Your task to perform on an android device: change notification settings in the gmail app Image 0: 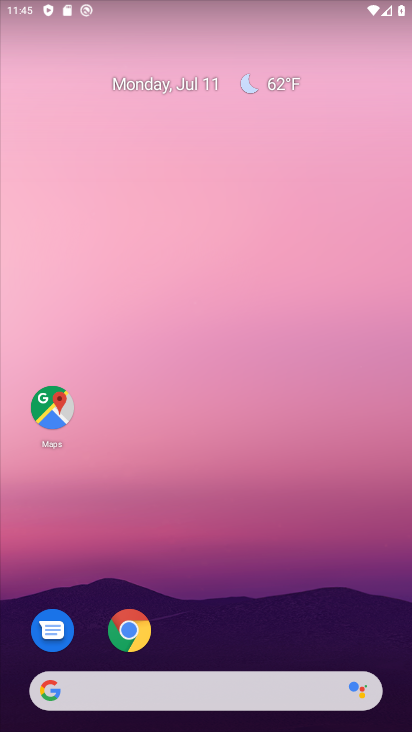
Step 0: drag from (220, 649) to (227, 153)
Your task to perform on an android device: change notification settings in the gmail app Image 1: 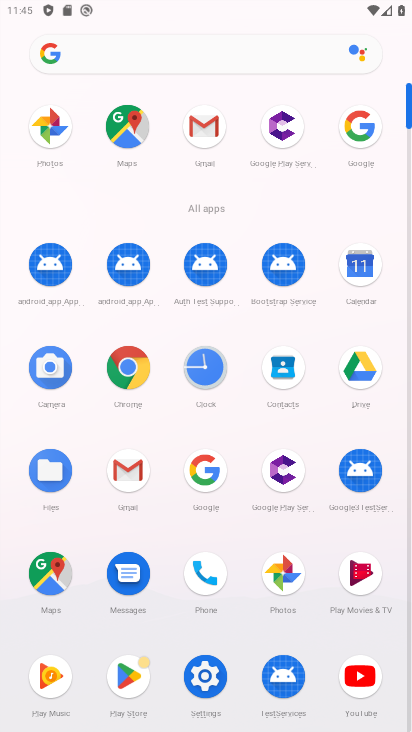
Step 1: click (199, 125)
Your task to perform on an android device: change notification settings in the gmail app Image 2: 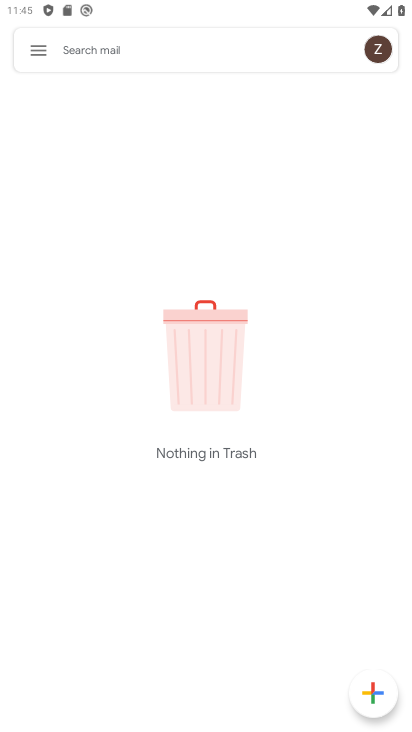
Step 2: click (41, 49)
Your task to perform on an android device: change notification settings in the gmail app Image 3: 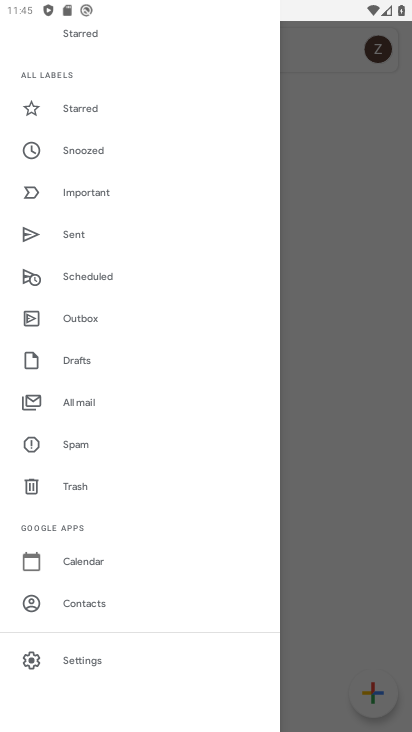
Step 3: click (98, 661)
Your task to perform on an android device: change notification settings in the gmail app Image 4: 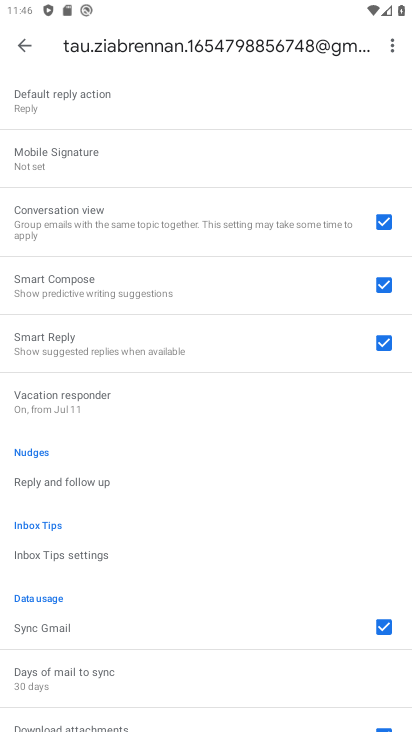
Step 4: drag from (108, 584) to (143, 690)
Your task to perform on an android device: change notification settings in the gmail app Image 5: 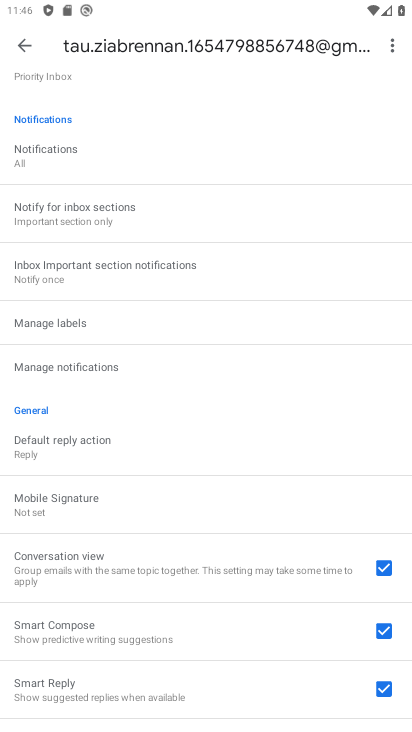
Step 5: click (62, 161)
Your task to perform on an android device: change notification settings in the gmail app Image 6: 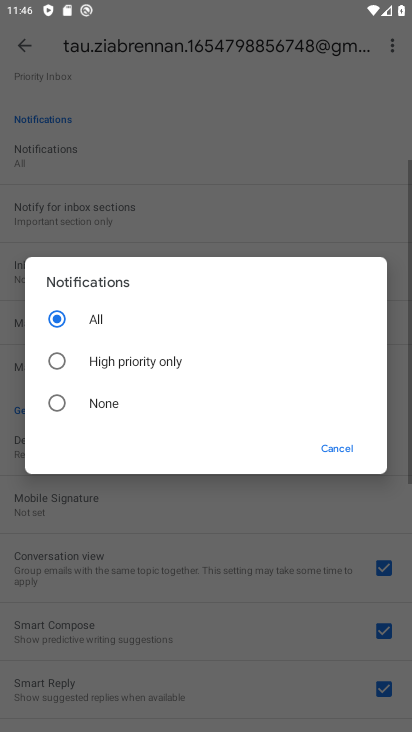
Step 6: click (57, 407)
Your task to perform on an android device: change notification settings in the gmail app Image 7: 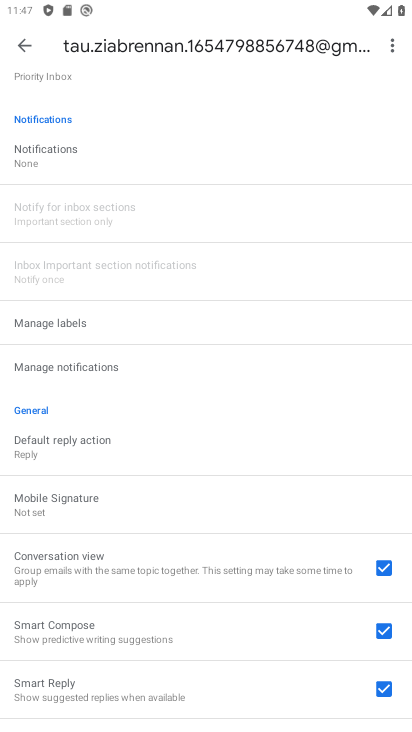
Step 7: task complete